Your task to perform on an android device: Open calendar and show me the first week of next month Image 0: 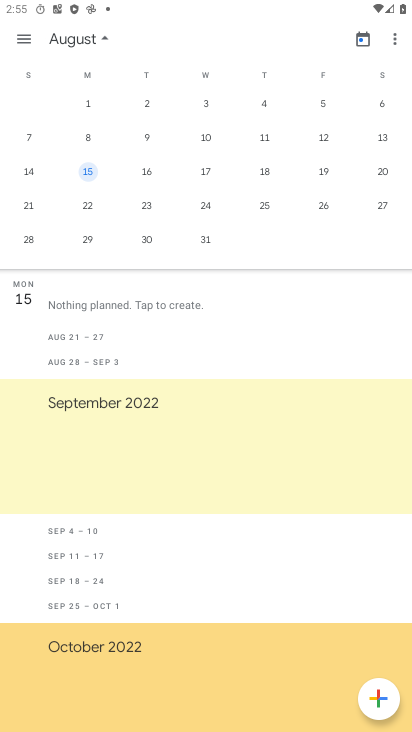
Step 0: press home button
Your task to perform on an android device: Open calendar and show me the first week of next month Image 1: 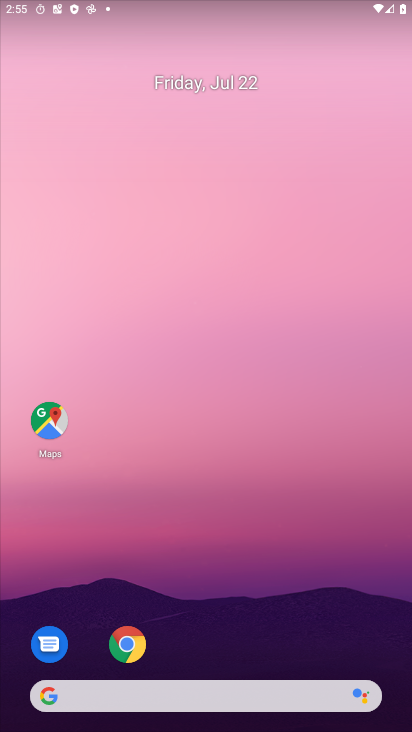
Step 1: drag from (172, 690) to (52, 189)
Your task to perform on an android device: Open calendar and show me the first week of next month Image 2: 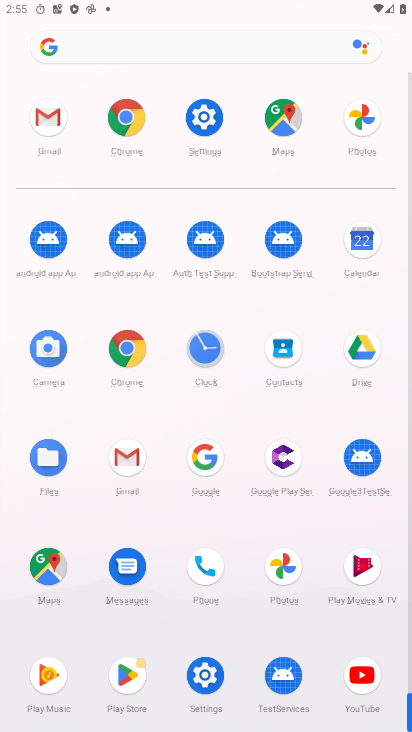
Step 2: click (351, 258)
Your task to perform on an android device: Open calendar and show me the first week of next month Image 3: 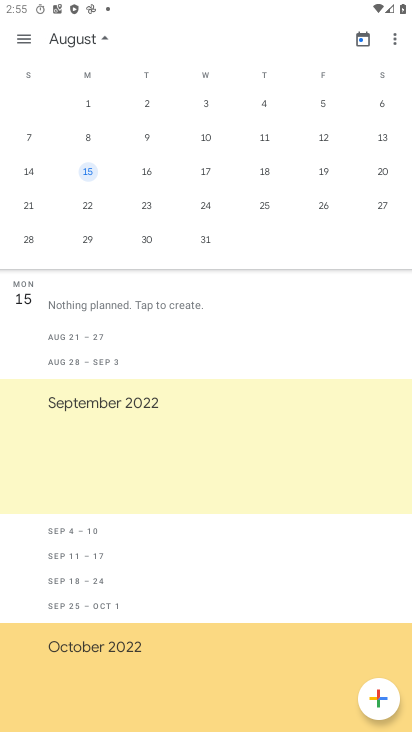
Step 3: click (93, 213)
Your task to perform on an android device: Open calendar and show me the first week of next month Image 4: 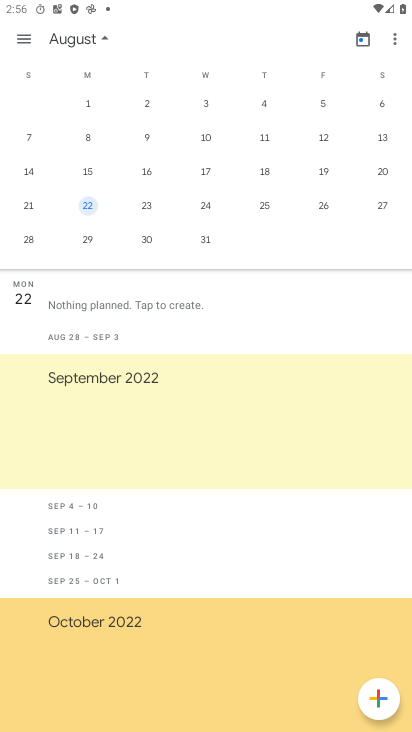
Step 4: task complete